Your task to perform on an android device: Toggle the flashlight Image 0: 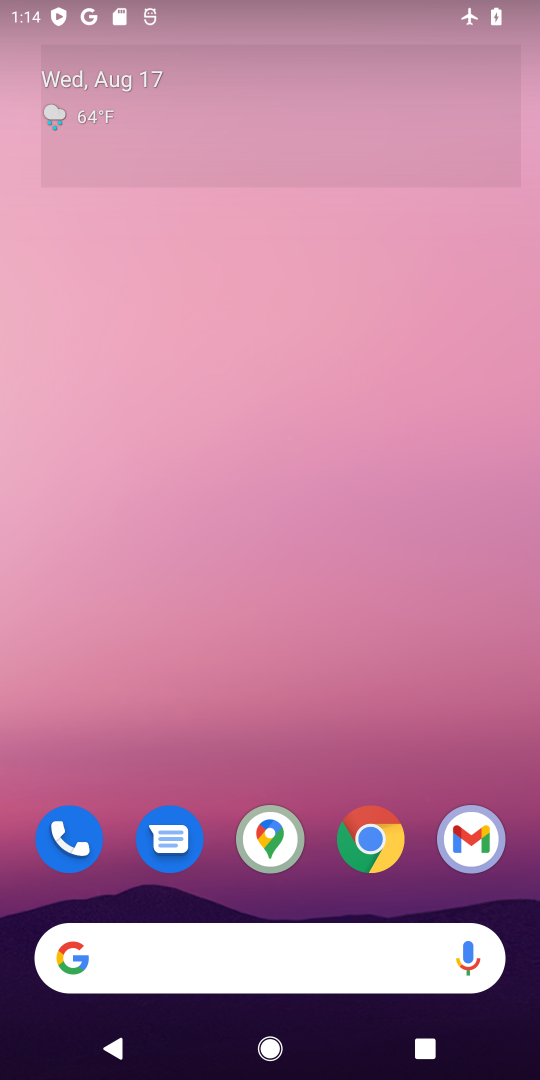
Step 0: drag from (289, 980) to (329, 296)
Your task to perform on an android device: Toggle the flashlight Image 1: 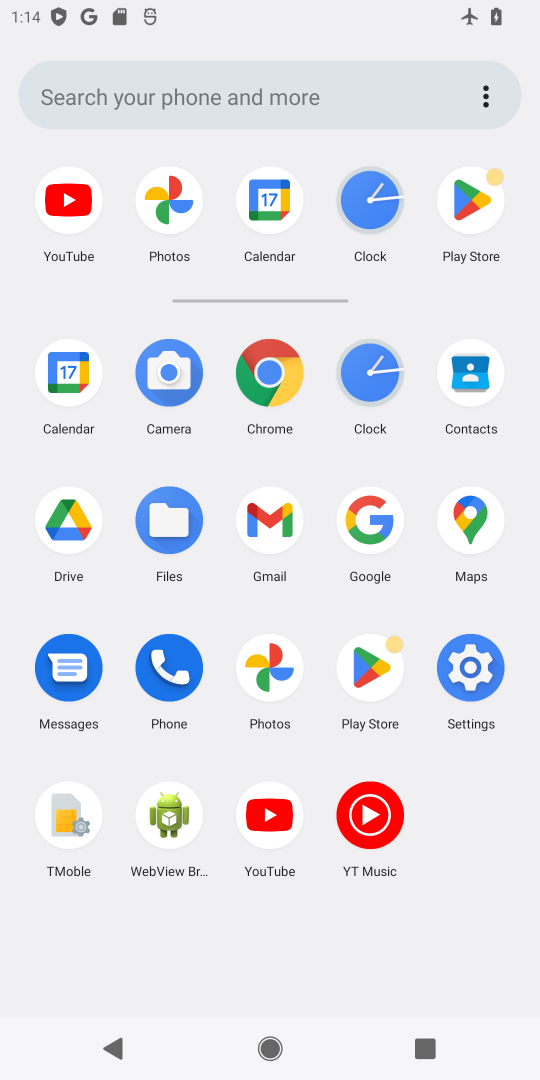
Step 1: click (467, 669)
Your task to perform on an android device: Toggle the flashlight Image 2: 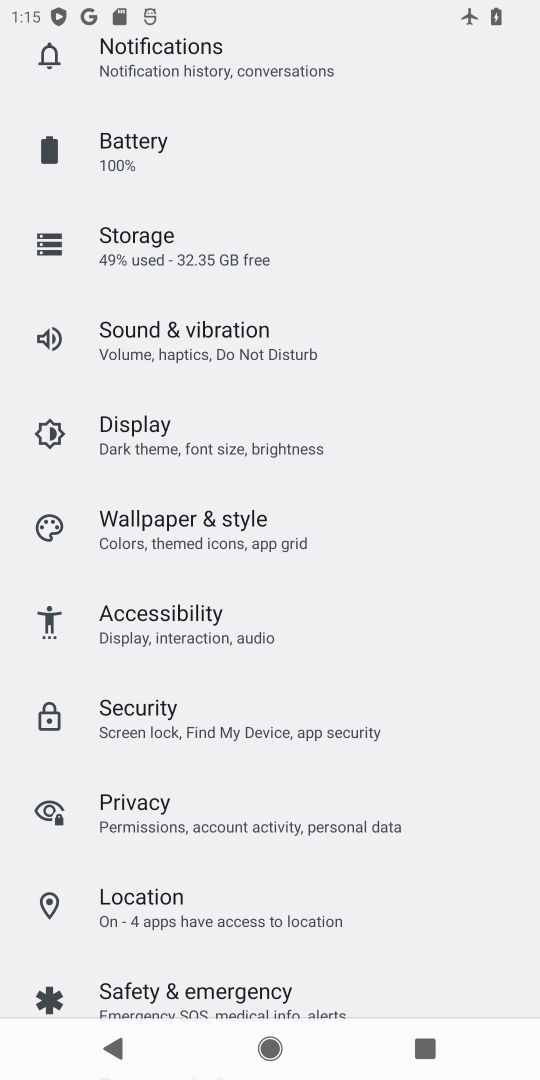
Step 2: drag from (210, 836) to (304, 723)
Your task to perform on an android device: Toggle the flashlight Image 3: 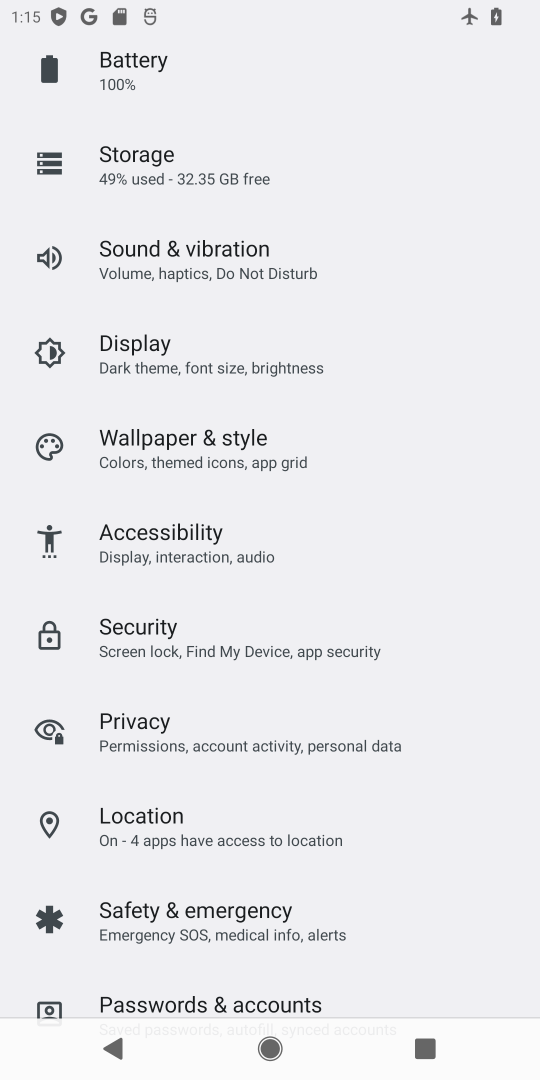
Step 3: drag from (251, 876) to (364, 737)
Your task to perform on an android device: Toggle the flashlight Image 4: 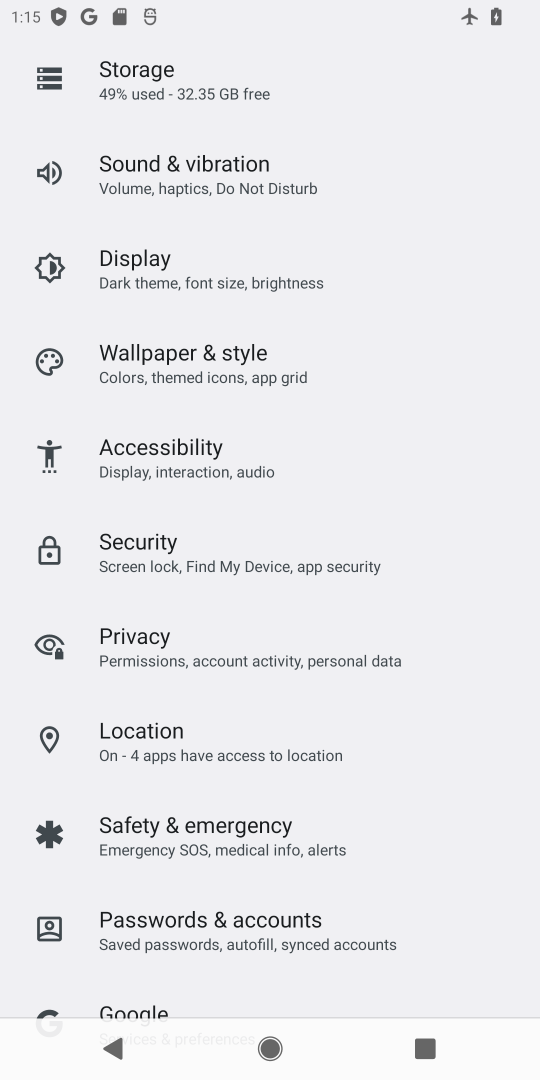
Step 4: drag from (232, 889) to (344, 736)
Your task to perform on an android device: Toggle the flashlight Image 5: 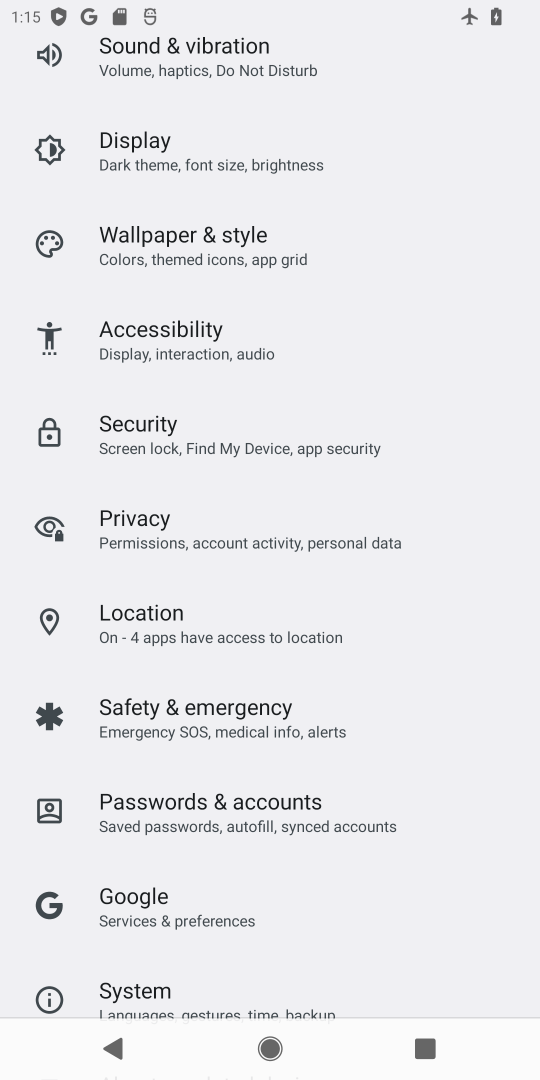
Step 5: drag from (211, 389) to (228, 786)
Your task to perform on an android device: Toggle the flashlight Image 6: 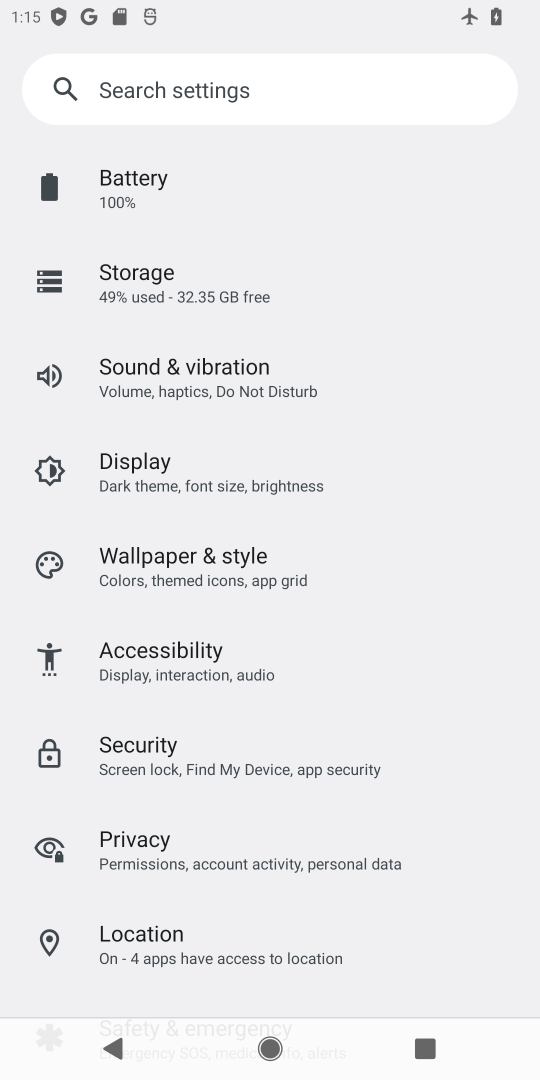
Step 6: click (304, 101)
Your task to perform on an android device: Toggle the flashlight Image 7: 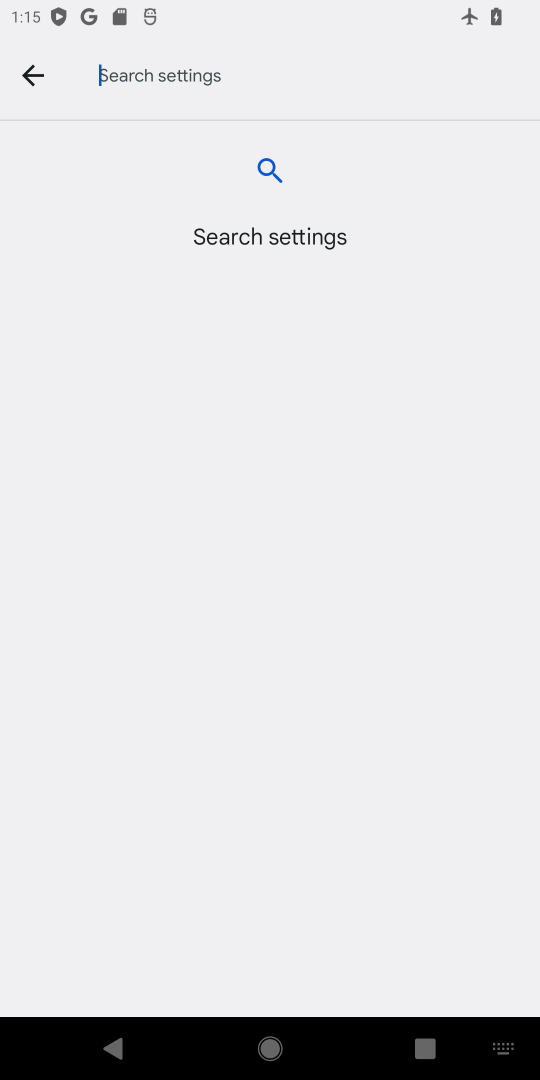
Step 7: type "flashlight"
Your task to perform on an android device: Toggle the flashlight Image 8: 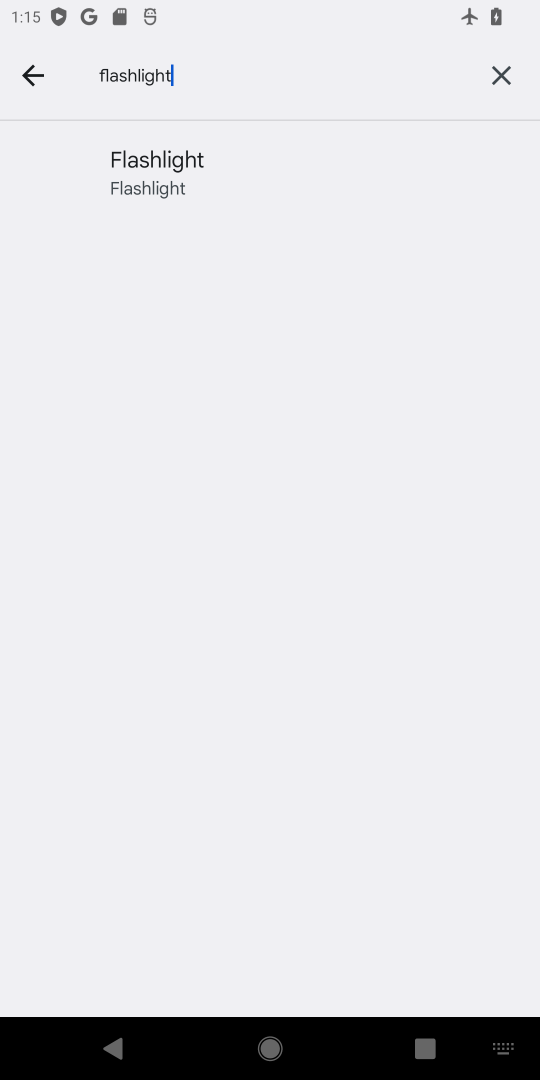
Step 8: click (164, 181)
Your task to perform on an android device: Toggle the flashlight Image 9: 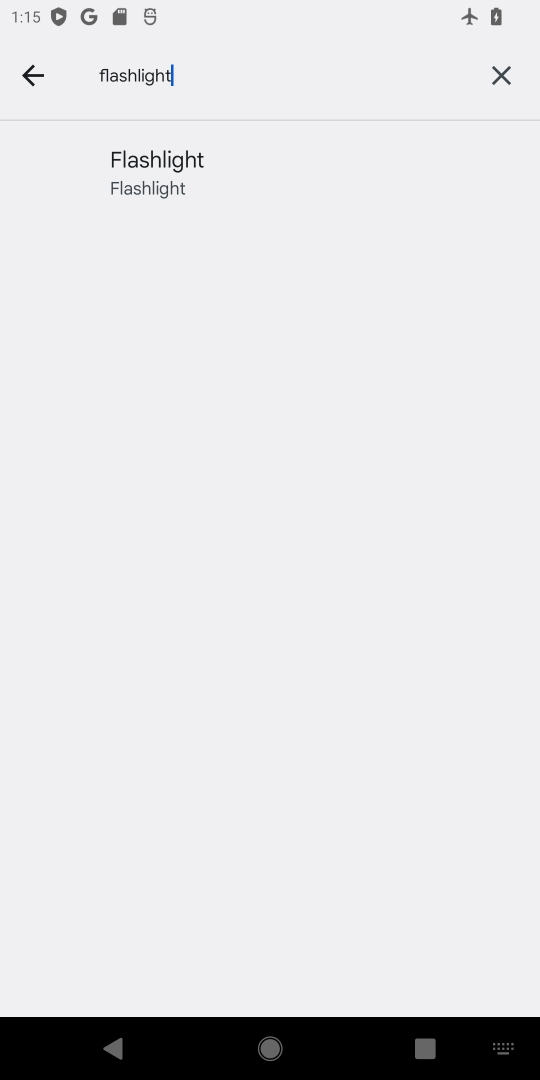
Step 9: task complete